Your task to perform on an android device: Open Youtube and go to "Your channel" Image 0: 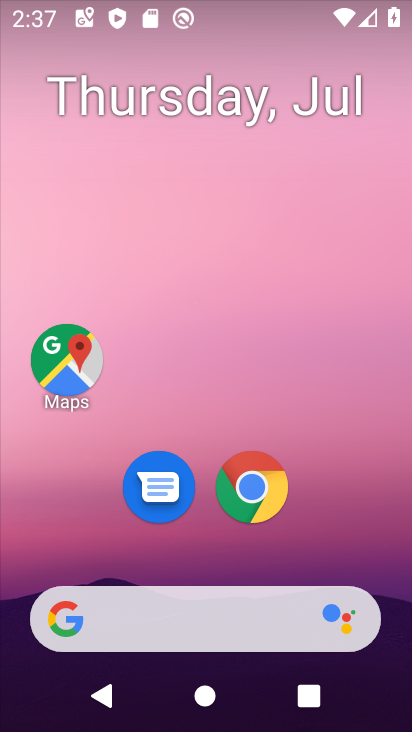
Step 0: drag from (379, 557) to (373, 81)
Your task to perform on an android device: Open Youtube and go to "Your channel" Image 1: 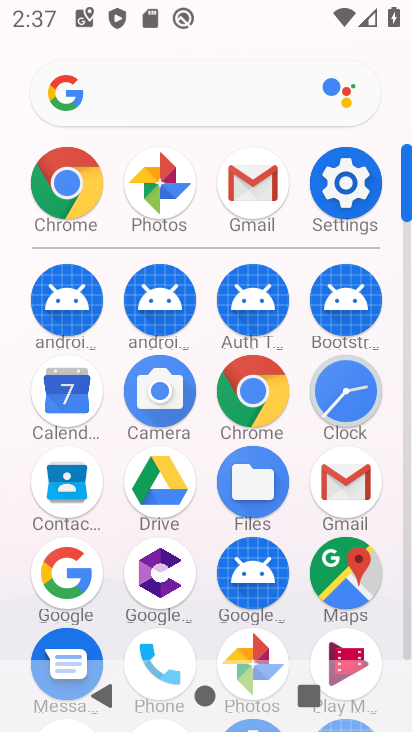
Step 1: drag from (384, 518) to (396, 225)
Your task to perform on an android device: Open Youtube and go to "Your channel" Image 2: 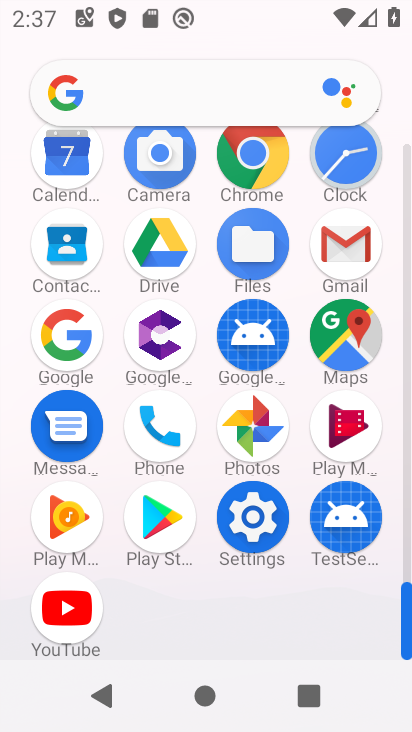
Step 2: click (72, 609)
Your task to perform on an android device: Open Youtube and go to "Your channel" Image 3: 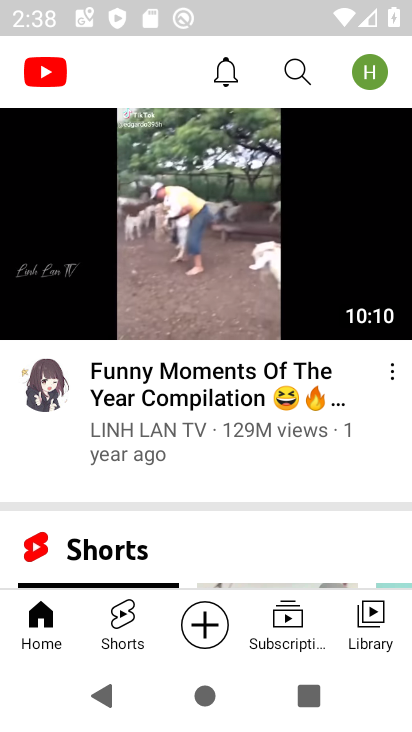
Step 3: click (379, 75)
Your task to perform on an android device: Open Youtube and go to "Your channel" Image 4: 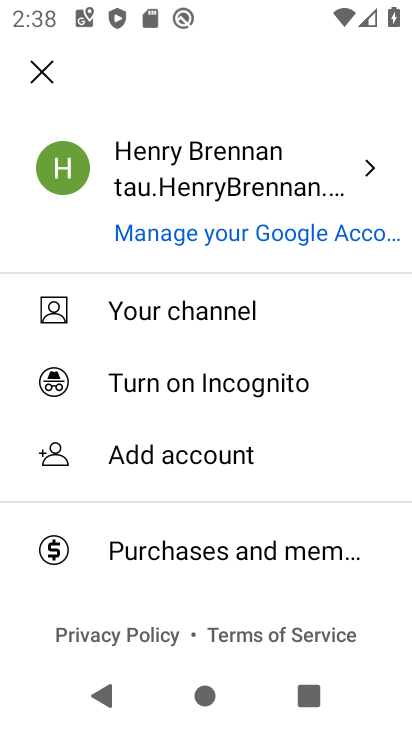
Step 4: click (277, 322)
Your task to perform on an android device: Open Youtube and go to "Your channel" Image 5: 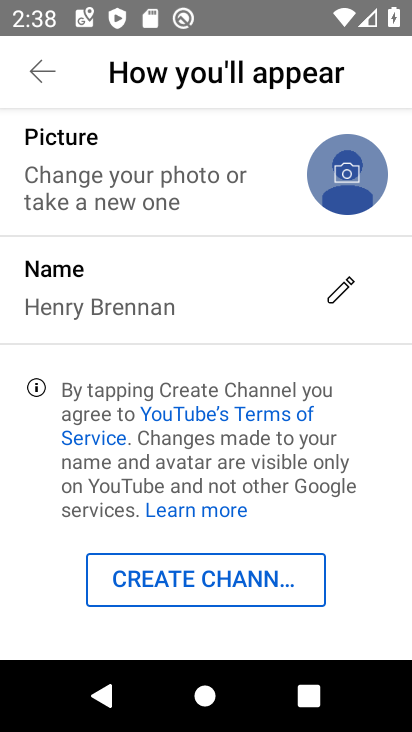
Step 5: task complete